Your task to perform on an android device: Open the phone app and click the voicemail tab. Image 0: 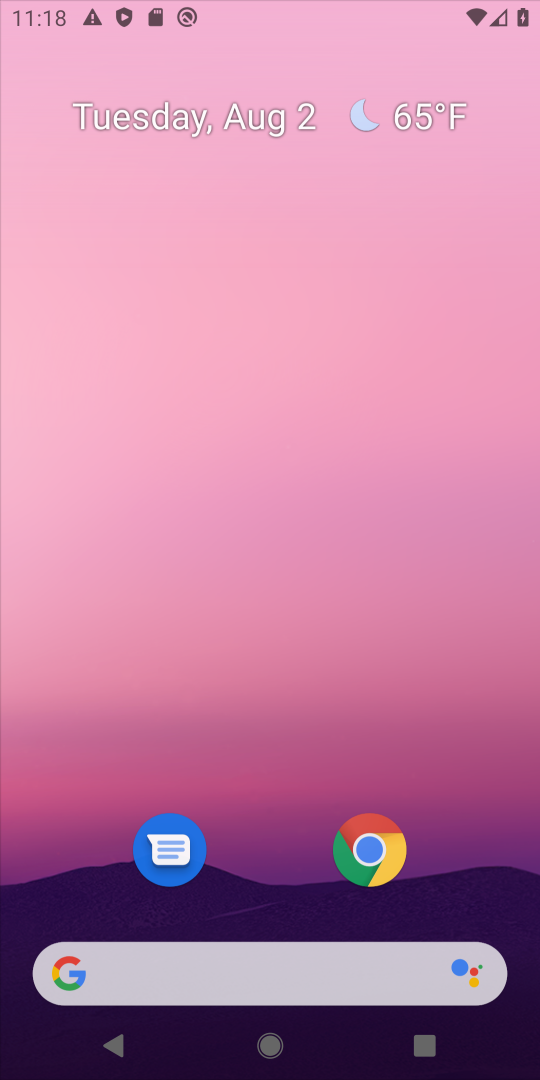
Step 0: press home button
Your task to perform on an android device: Open the phone app and click the voicemail tab. Image 1: 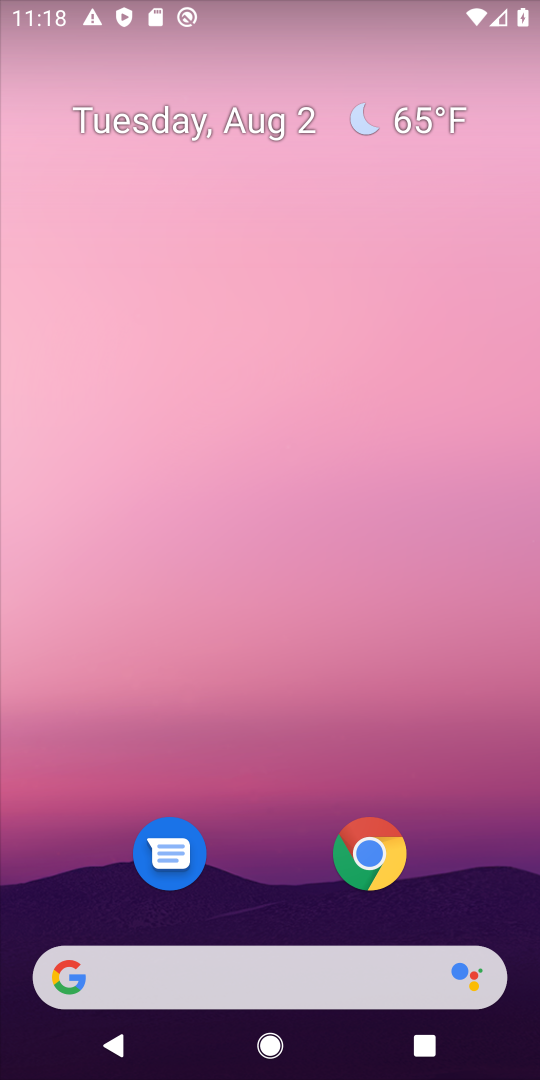
Step 1: drag from (278, 863) to (349, 291)
Your task to perform on an android device: Open the phone app and click the voicemail tab. Image 2: 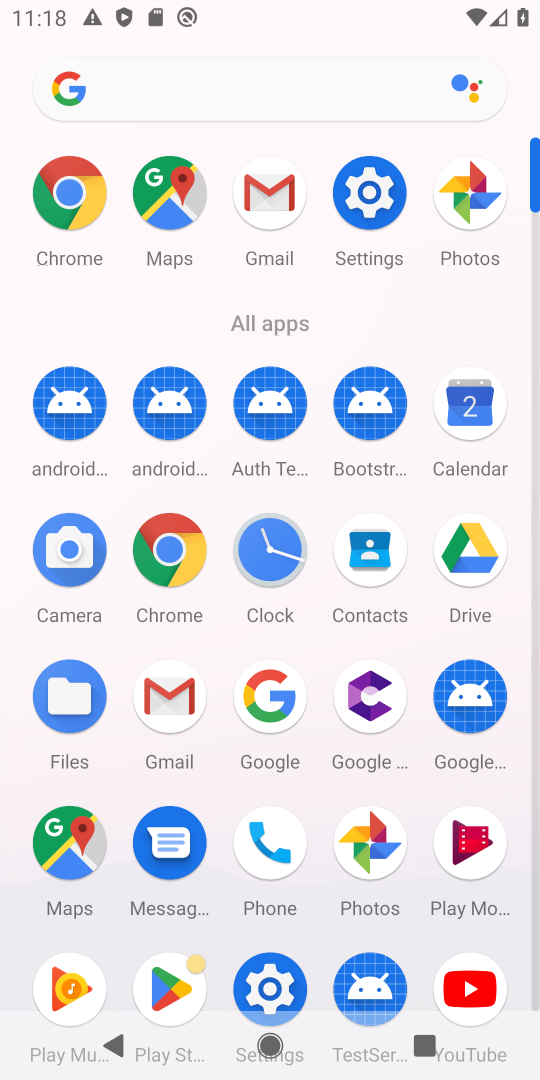
Step 2: click (270, 851)
Your task to perform on an android device: Open the phone app and click the voicemail tab. Image 3: 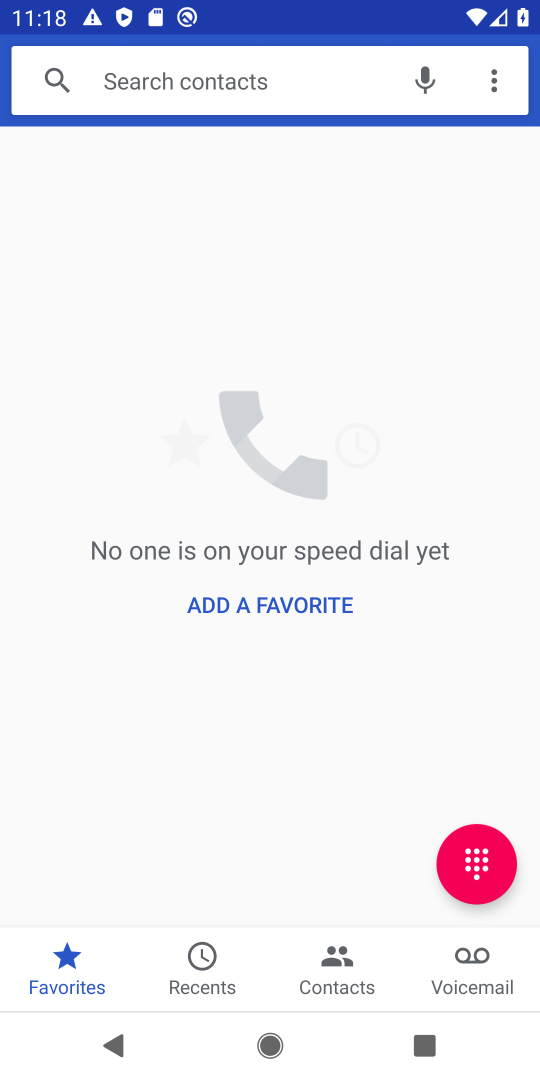
Step 3: click (430, 996)
Your task to perform on an android device: Open the phone app and click the voicemail tab. Image 4: 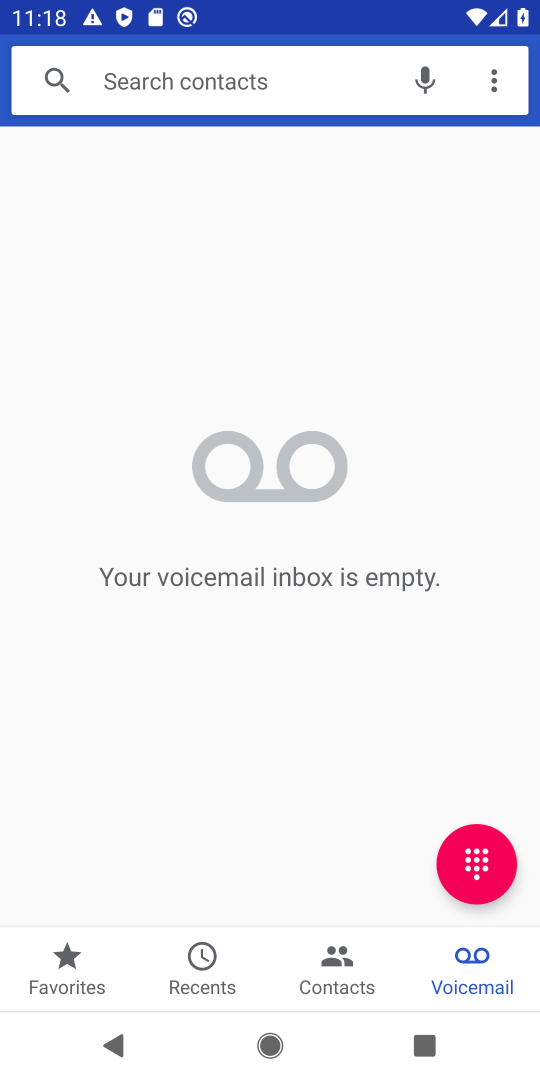
Step 4: task complete